Your task to perform on an android device: Go to Google maps Image 0: 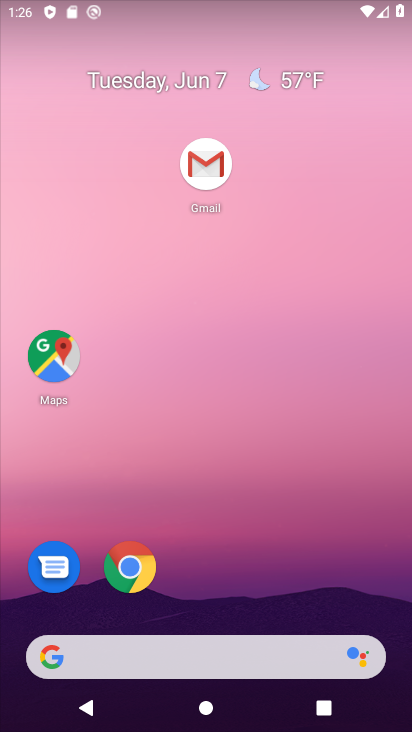
Step 0: click (54, 365)
Your task to perform on an android device: Go to Google maps Image 1: 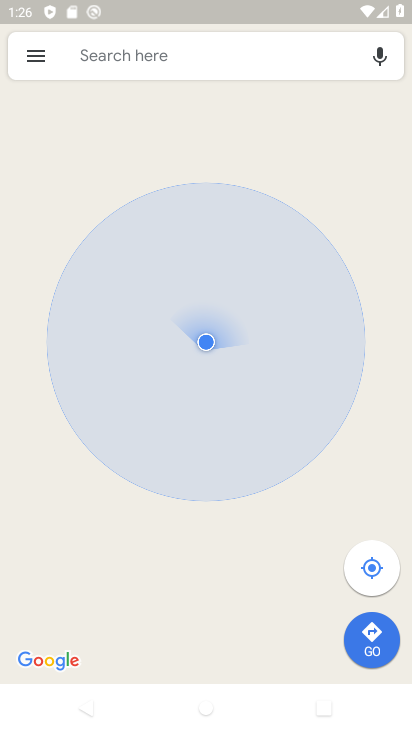
Step 1: task complete